Your task to perform on an android device: open chrome privacy settings Image 0: 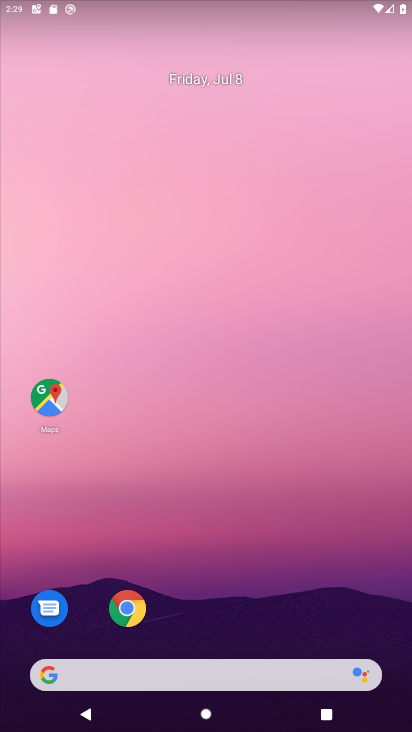
Step 0: drag from (254, 619) to (261, 282)
Your task to perform on an android device: open chrome privacy settings Image 1: 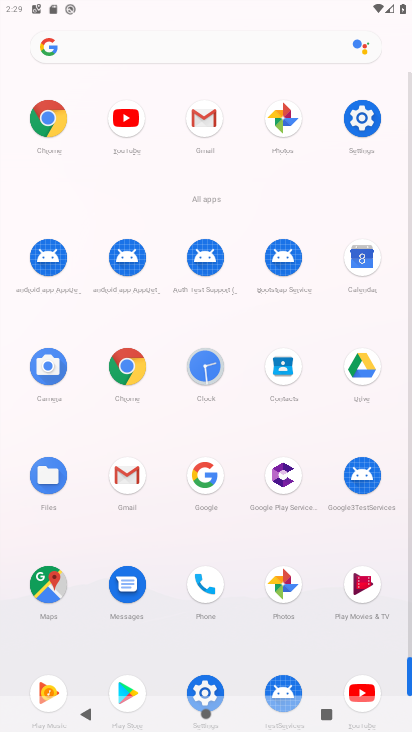
Step 1: click (379, 117)
Your task to perform on an android device: open chrome privacy settings Image 2: 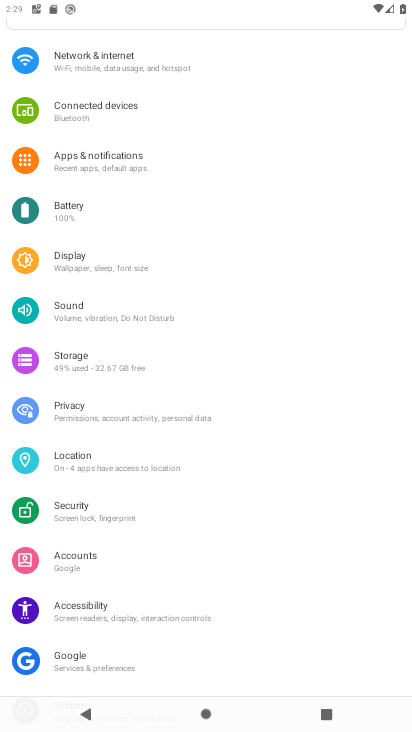
Step 2: click (98, 411)
Your task to perform on an android device: open chrome privacy settings Image 3: 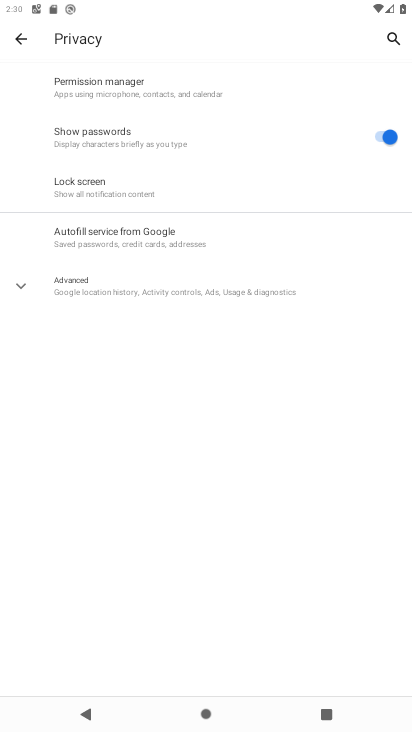
Step 3: task complete